Your task to perform on an android device: Open Google Chrome Image 0: 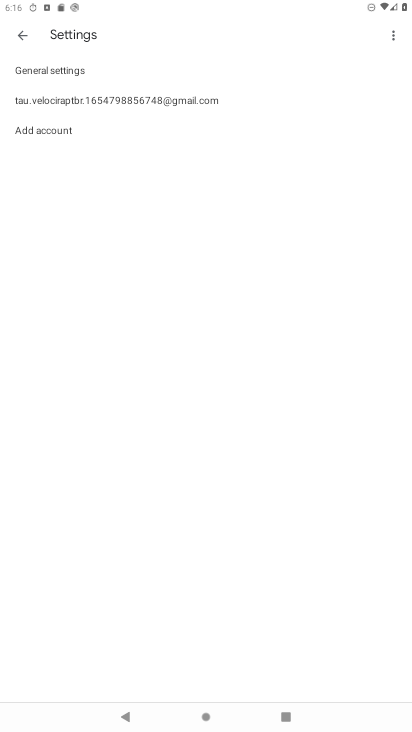
Step 0: press home button
Your task to perform on an android device: Open Google Chrome Image 1: 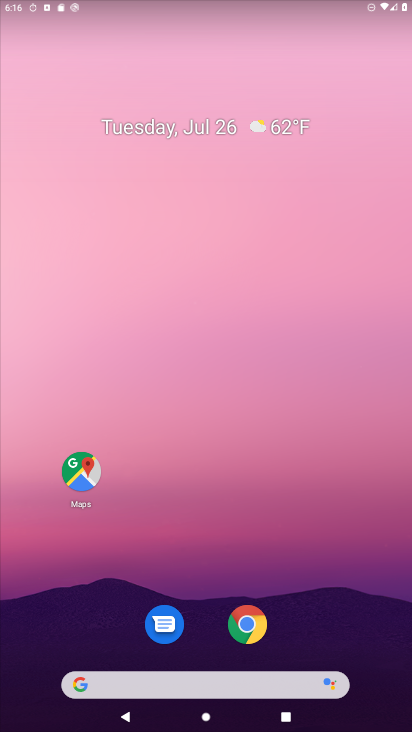
Step 1: drag from (253, 477) to (401, 600)
Your task to perform on an android device: Open Google Chrome Image 2: 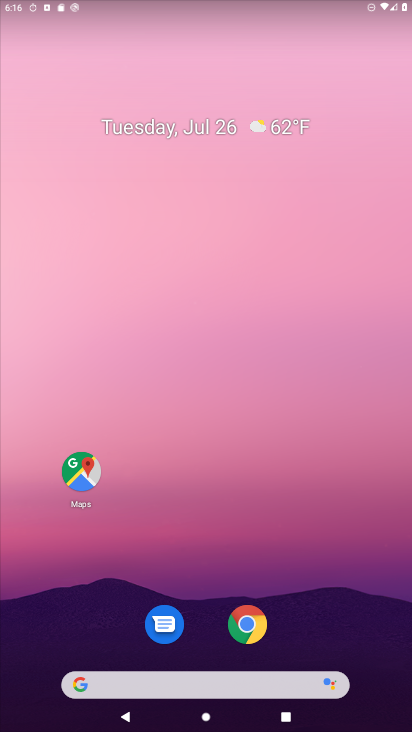
Step 2: drag from (278, 662) to (309, 11)
Your task to perform on an android device: Open Google Chrome Image 3: 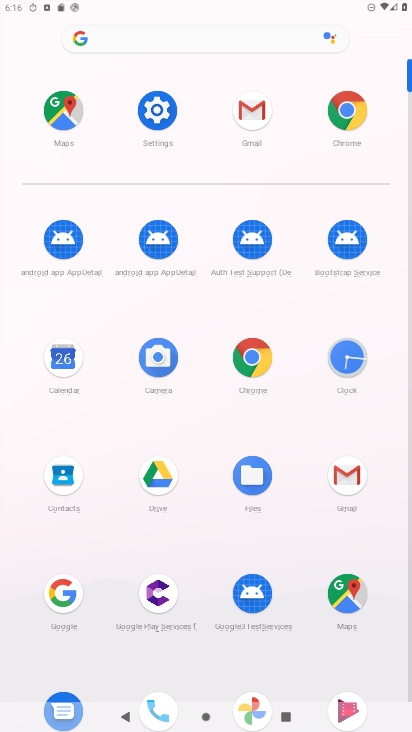
Step 3: click (252, 358)
Your task to perform on an android device: Open Google Chrome Image 4: 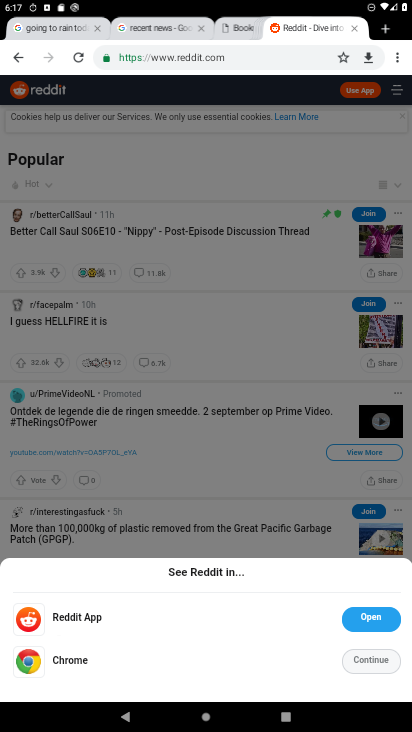
Step 4: task complete